Your task to perform on an android device: Go to Reddit.com Image 0: 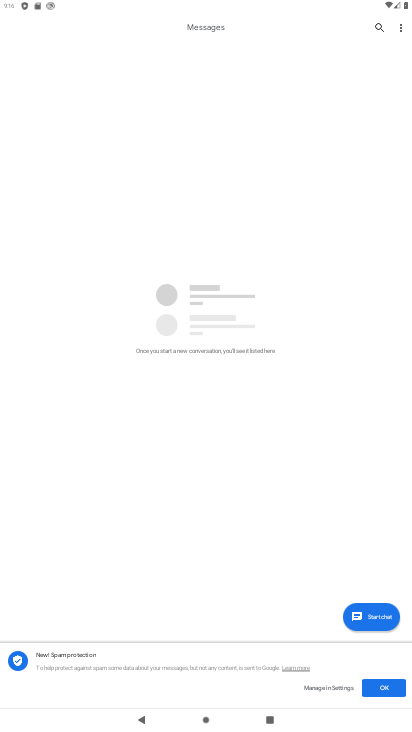
Step 0: press home button
Your task to perform on an android device: Go to Reddit.com Image 1: 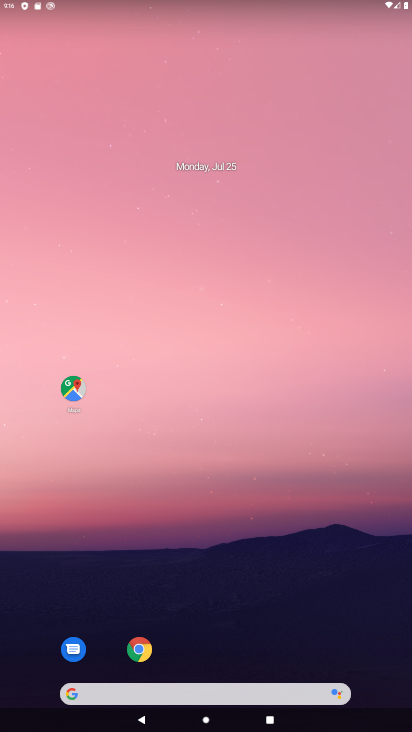
Step 1: drag from (313, 434) to (378, 92)
Your task to perform on an android device: Go to Reddit.com Image 2: 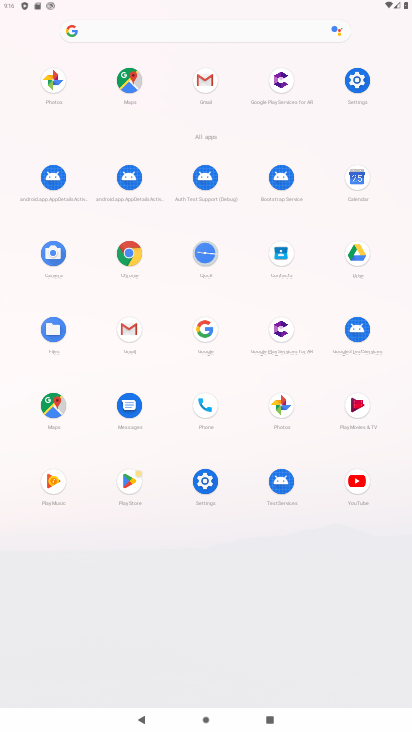
Step 2: click (122, 247)
Your task to perform on an android device: Go to Reddit.com Image 3: 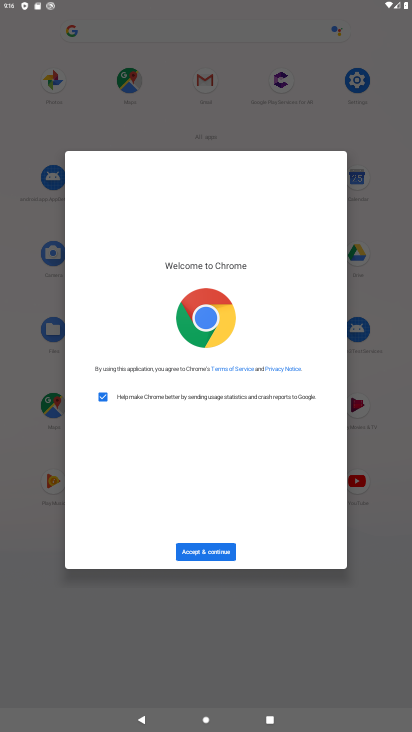
Step 3: click (229, 553)
Your task to perform on an android device: Go to Reddit.com Image 4: 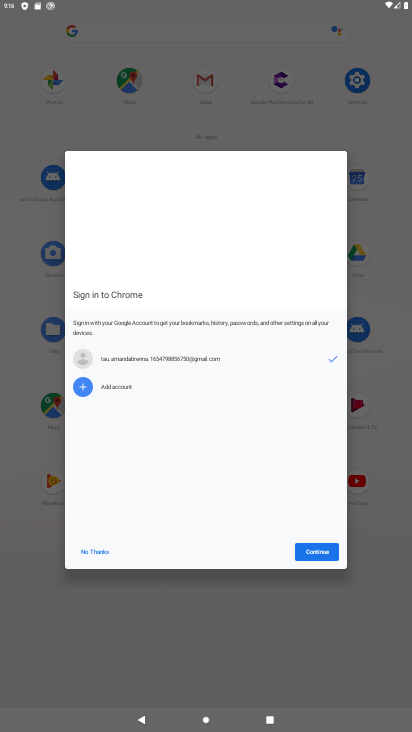
Step 4: click (98, 554)
Your task to perform on an android device: Go to Reddit.com Image 5: 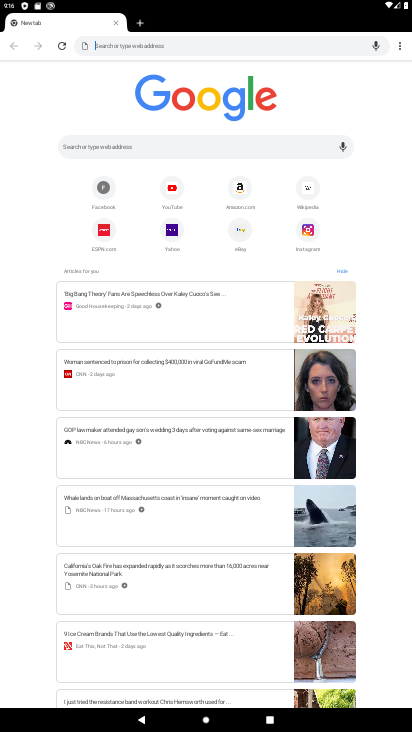
Step 5: click (137, 138)
Your task to perform on an android device: Go to Reddit.com Image 6: 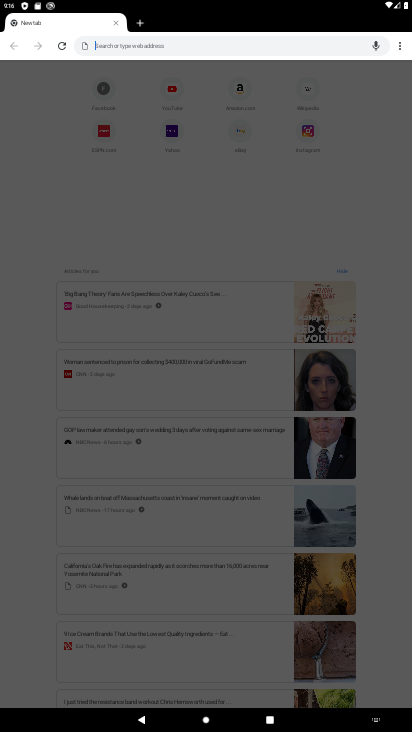
Step 6: type "reddit.com"
Your task to perform on an android device: Go to Reddit.com Image 7: 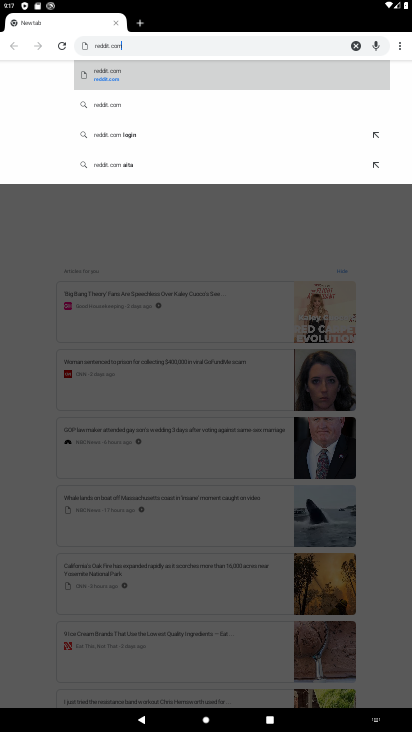
Step 7: click (116, 72)
Your task to perform on an android device: Go to Reddit.com Image 8: 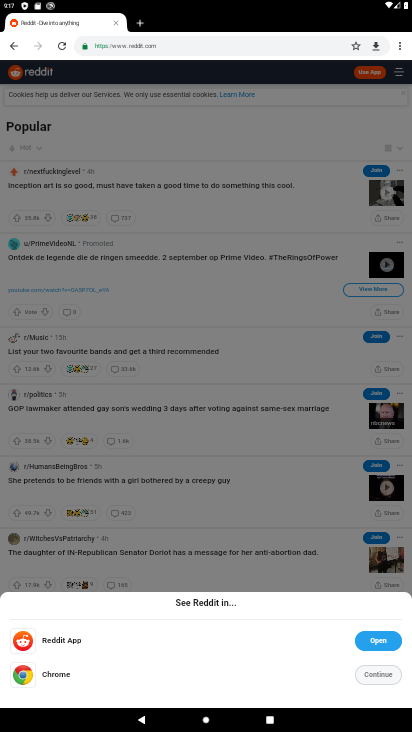
Step 8: task complete